Your task to perform on an android device: Go to Android settings Image 0: 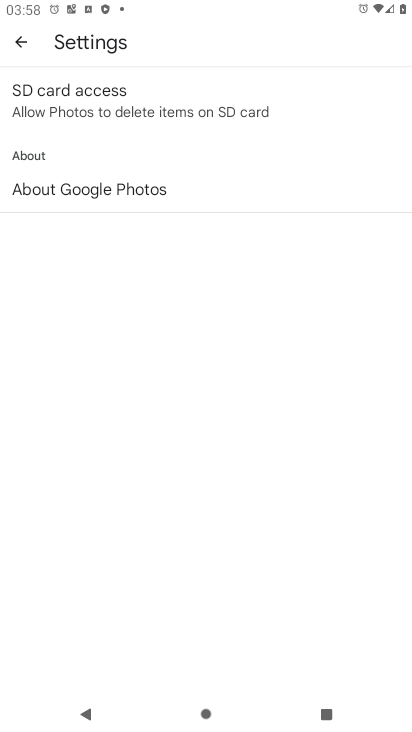
Step 0: press home button
Your task to perform on an android device: Go to Android settings Image 1: 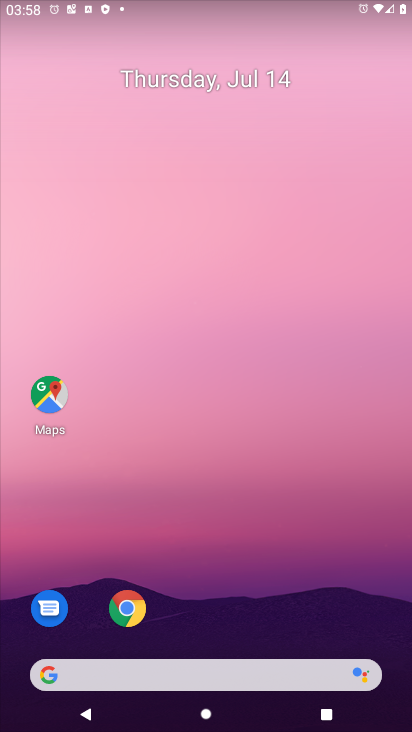
Step 1: drag from (400, 662) to (336, 180)
Your task to perform on an android device: Go to Android settings Image 2: 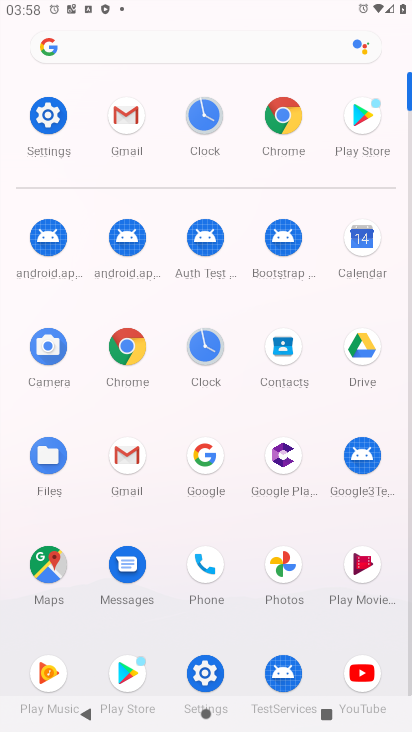
Step 2: click (203, 673)
Your task to perform on an android device: Go to Android settings Image 3: 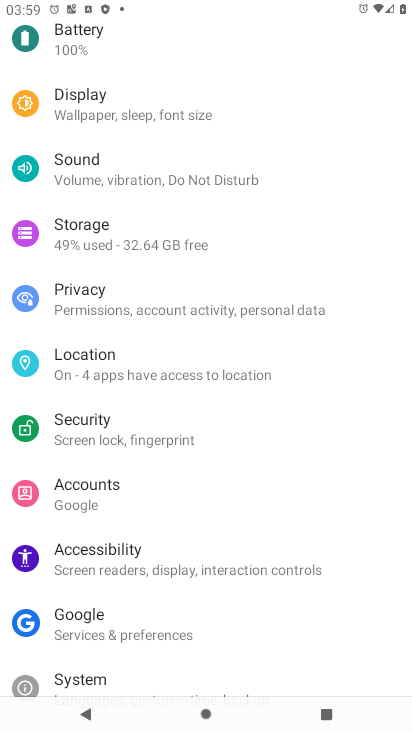
Step 3: drag from (203, 673) to (192, 295)
Your task to perform on an android device: Go to Android settings Image 4: 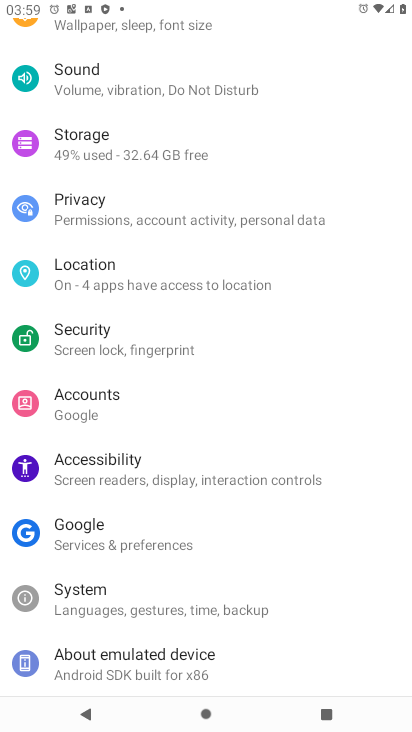
Step 4: click (91, 666)
Your task to perform on an android device: Go to Android settings Image 5: 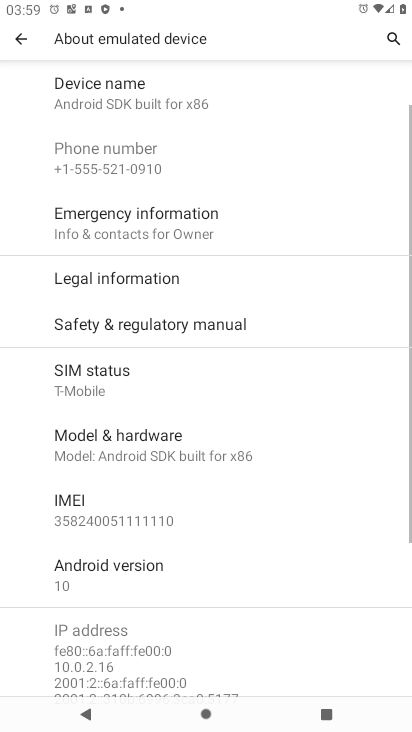
Step 5: task complete